Your task to perform on an android device: Open maps Image 0: 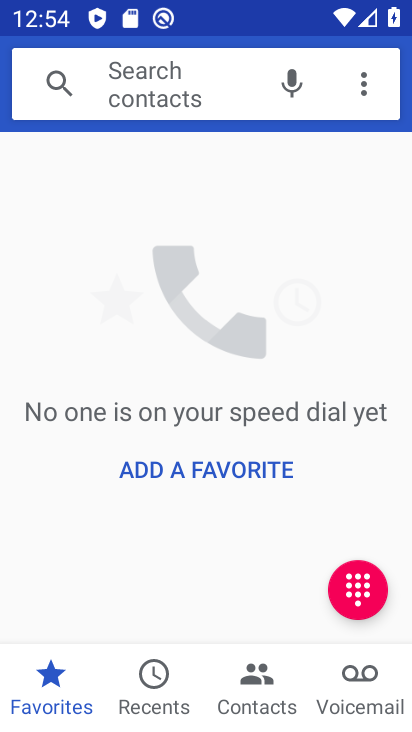
Step 0: press home button
Your task to perform on an android device: Open maps Image 1: 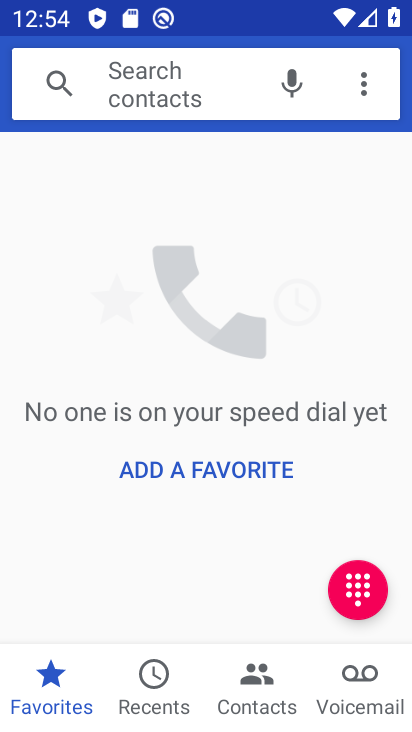
Step 1: press home button
Your task to perform on an android device: Open maps Image 2: 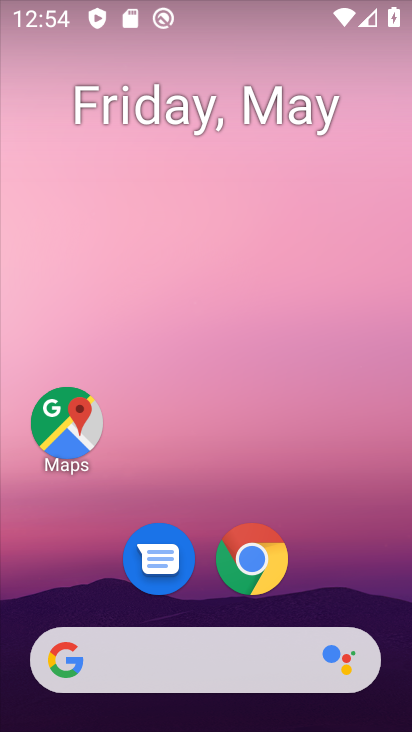
Step 2: click (77, 421)
Your task to perform on an android device: Open maps Image 3: 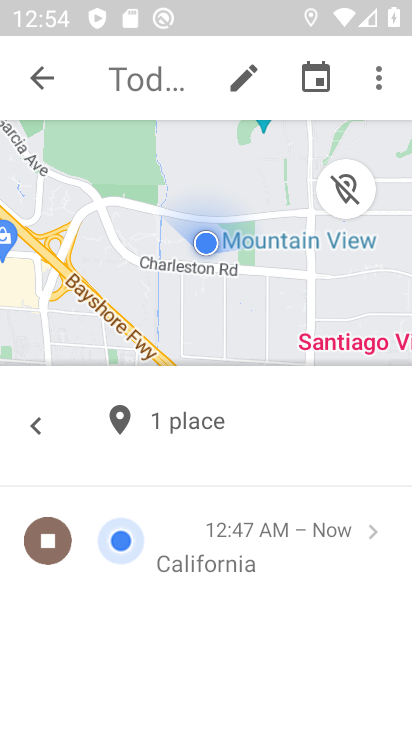
Step 3: task complete